Your task to perform on an android device: Go to location settings Image 0: 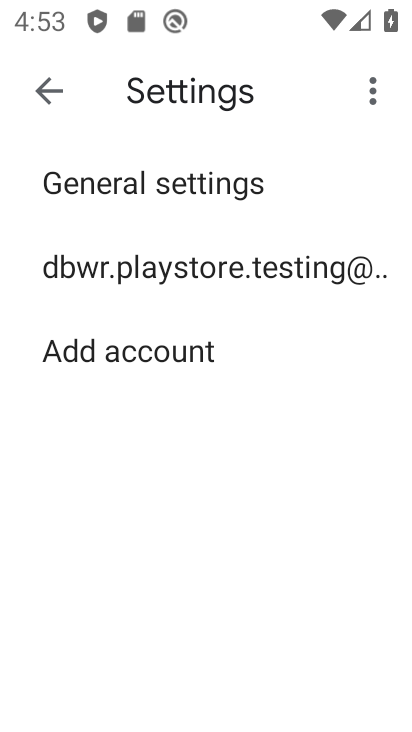
Step 0: press home button
Your task to perform on an android device: Go to location settings Image 1: 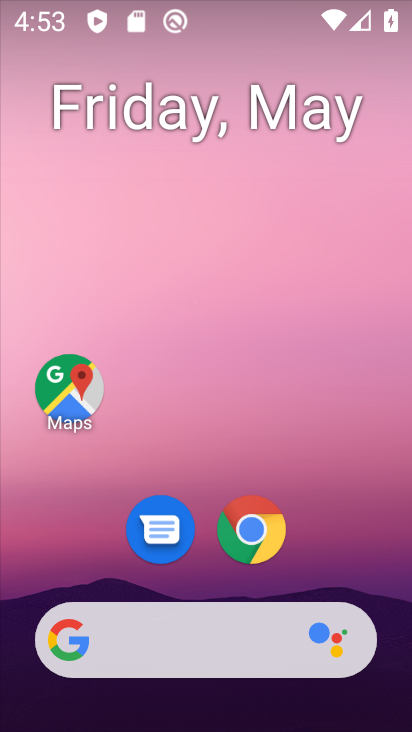
Step 1: drag from (206, 591) to (245, 205)
Your task to perform on an android device: Go to location settings Image 2: 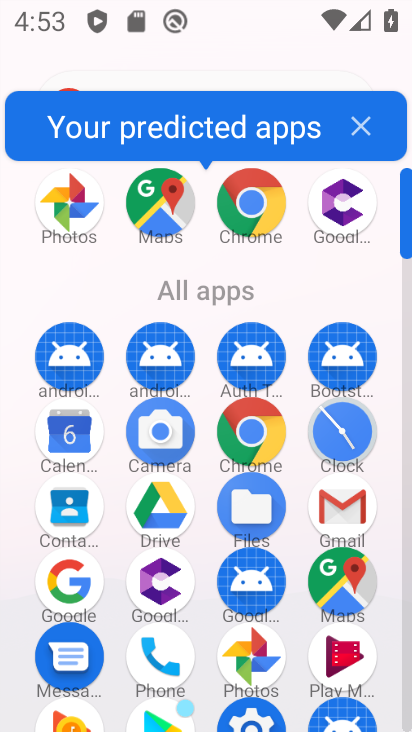
Step 2: click (243, 716)
Your task to perform on an android device: Go to location settings Image 3: 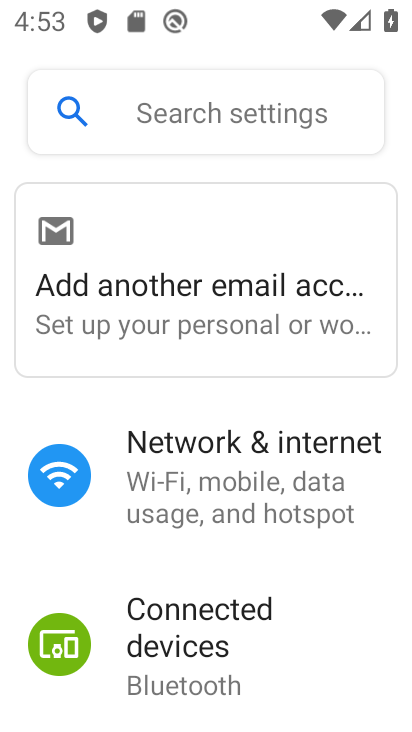
Step 3: drag from (243, 716) to (323, 214)
Your task to perform on an android device: Go to location settings Image 4: 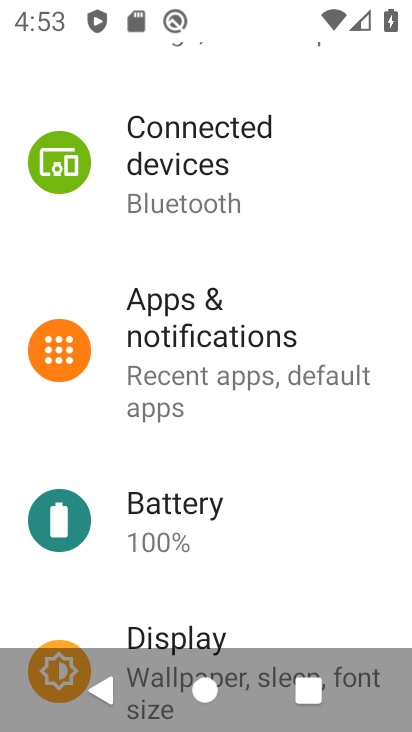
Step 4: drag from (127, 509) to (203, 165)
Your task to perform on an android device: Go to location settings Image 5: 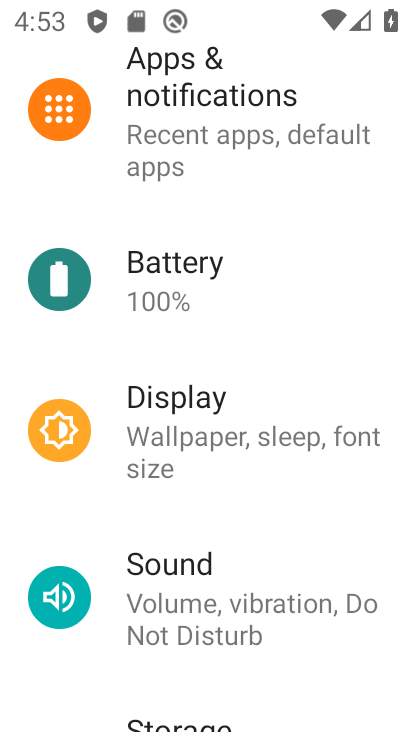
Step 5: drag from (142, 523) to (226, 155)
Your task to perform on an android device: Go to location settings Image 6: 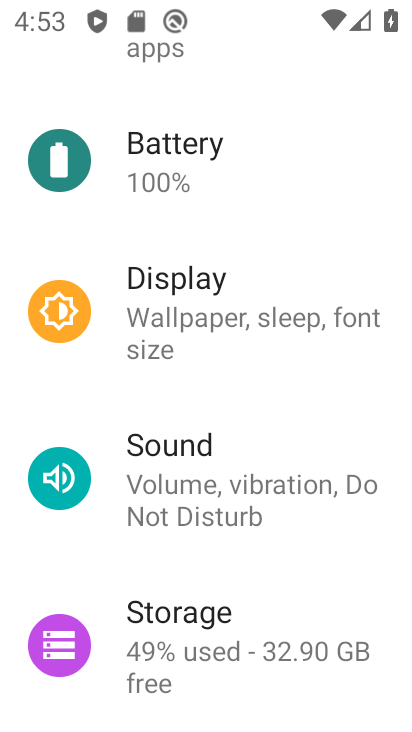
Step 6: drag from (128, 568) to (217, 13)
Your task to perform on an android device: Go to location settings Image 7: 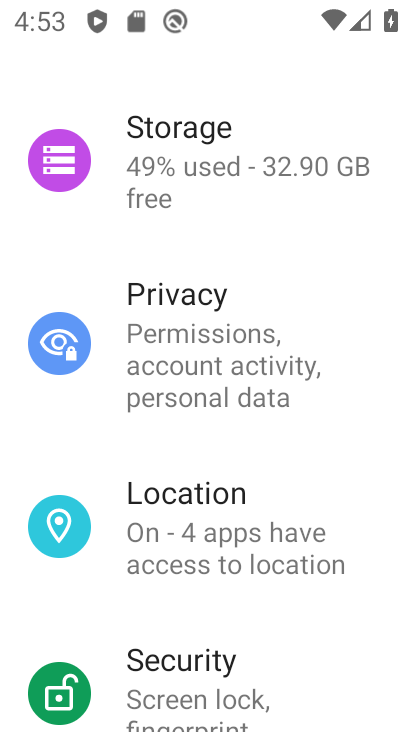
Step 7: click (118, 565)
Your task to perform on an android device: Go to location settings Image 8: 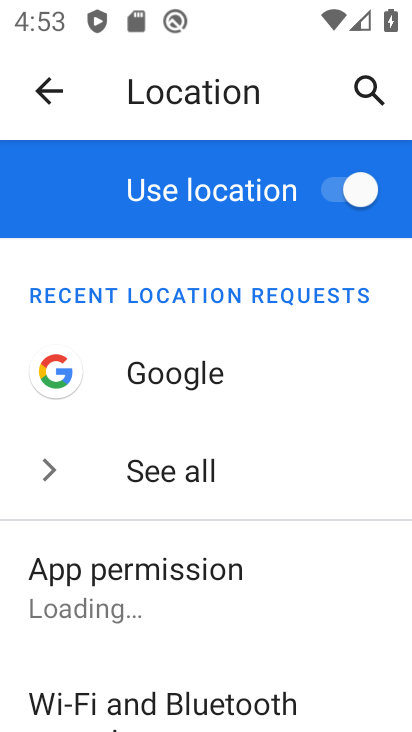
Step 8: task complete